Your task to perform on an android device: set default search engine in the chrome app Image 0: 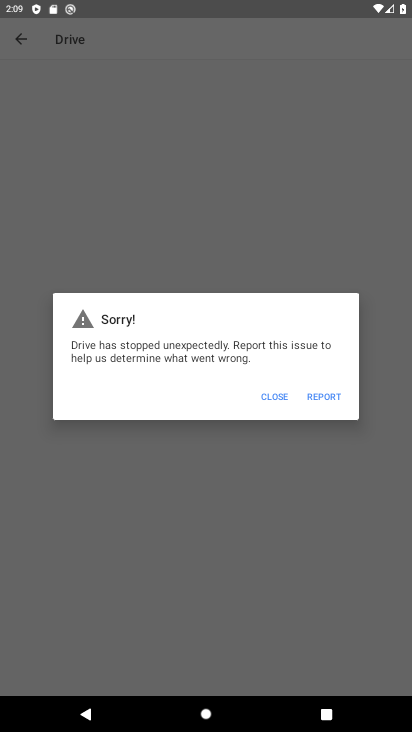
Step 0: press home button
Your task to perform on an android device: set default search engine in the chrome app Image 1: 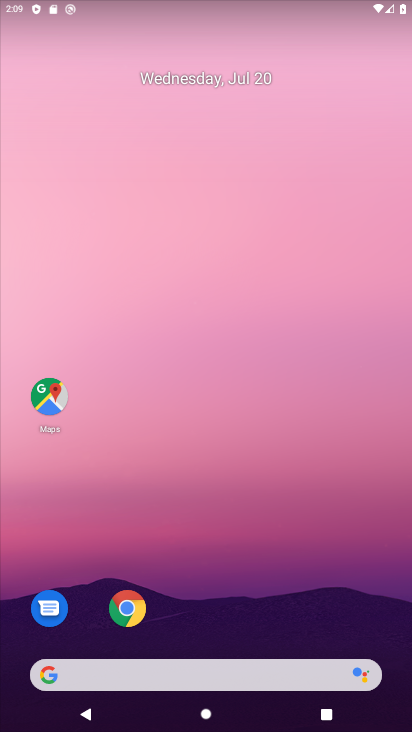
Step 1: click (133, 612)
Your task to perform on an android device: set default search engine in the chrome app Image 2: 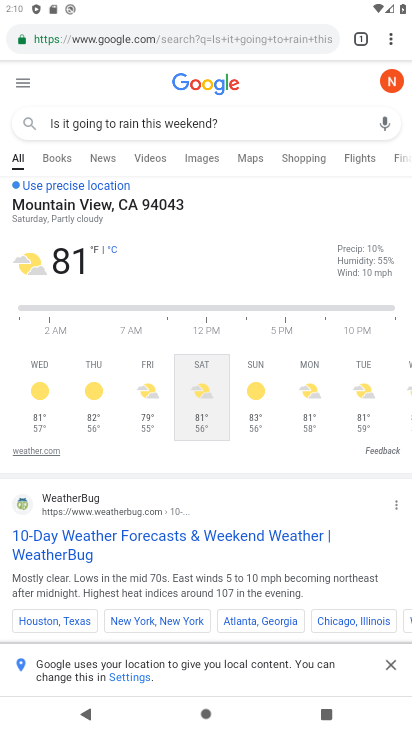
Step 2: click (395, 38)
Your task to perform on an android device: set default search engine in the chrome app Image 3: 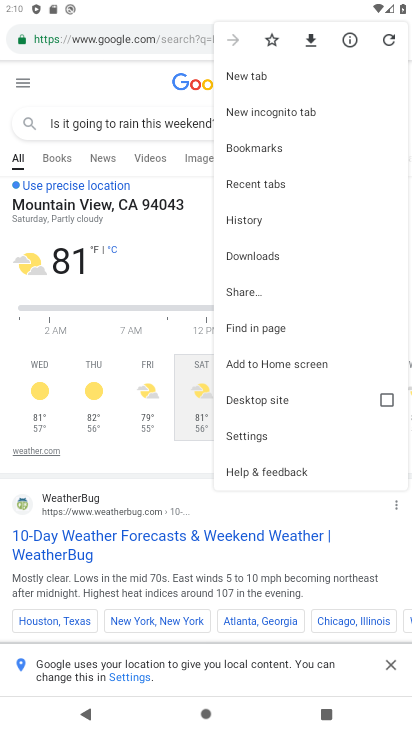
Step 3: click (271, 425)
Your task to perform on an android device: set default search engine in the chrome app Image 4: 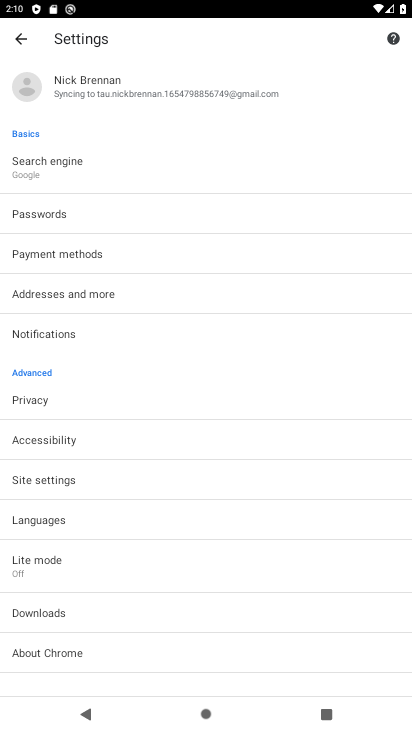
Step 4: click (145, 161)
Your task to perform on an android device: set default search engine in the chrome app Image 5: 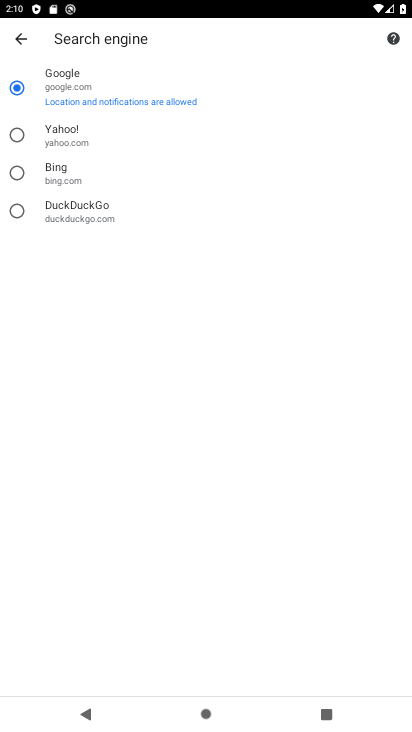
Step 5: click (77, 142)
Your task to perform on an android device: set default search engine in the chrome app Image 6: 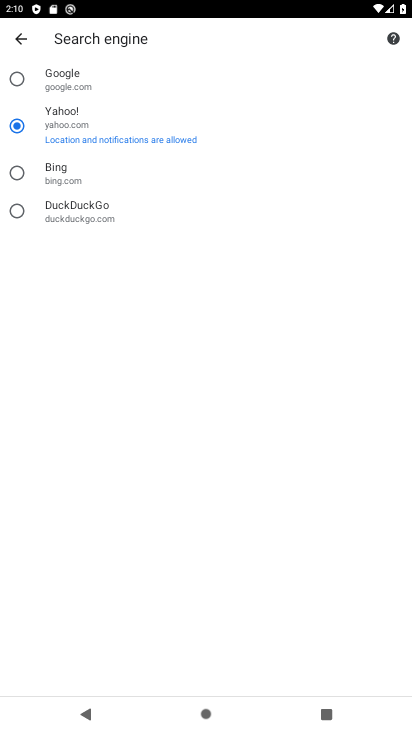
Step 6: task complete